Your task to perform on an android device: turn on airplane mode Image 0: 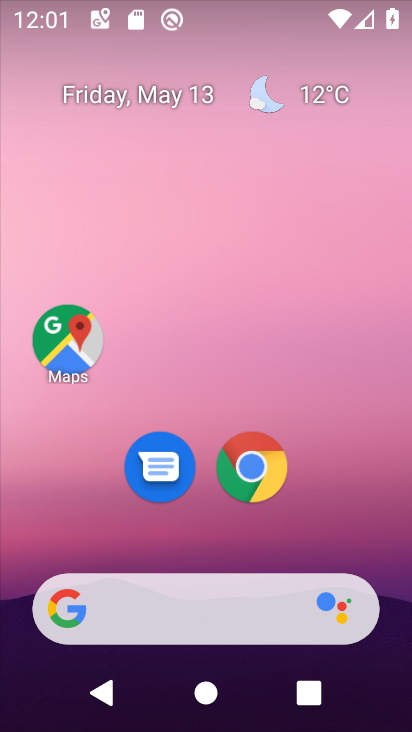
Step 0: press home button
Your task to perform on an android device: turn on airplane mode Image 1: 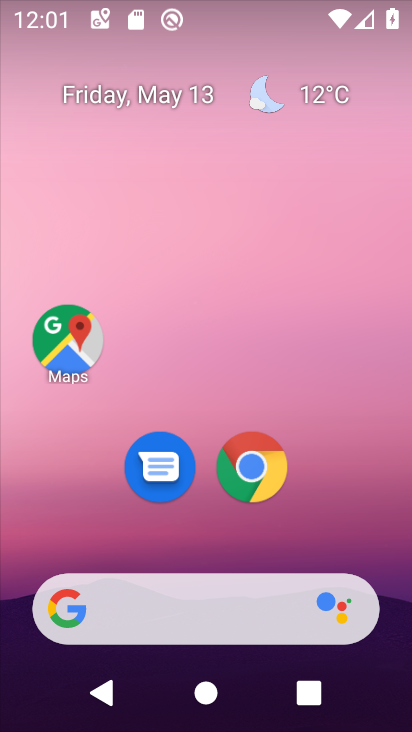
Step 1: drag from (342, 524) to (221, 114)
Your task to perform on an android device: turn on airplane mode Image 2: 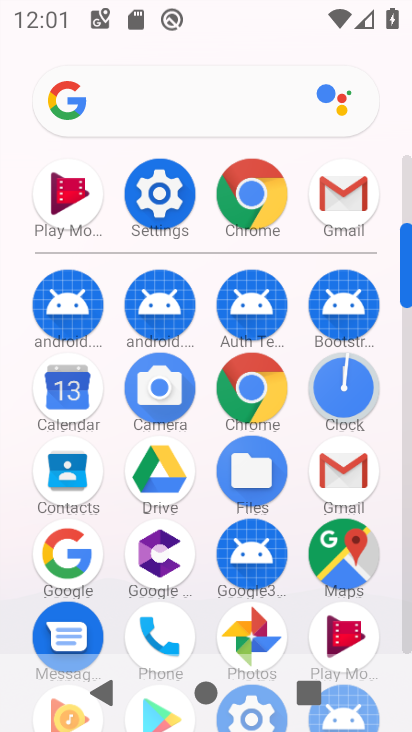
Step 2: click (171, 200)
Your task to perform on an android device: turn on airplane mode Image 3: 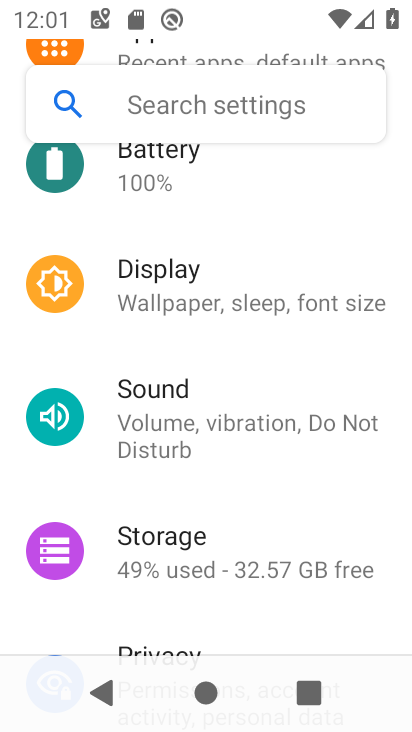
Step 3: drag from (251, 215) to (230, 649)
Your task to perform on an android device: turn on airplane mode Image 4: 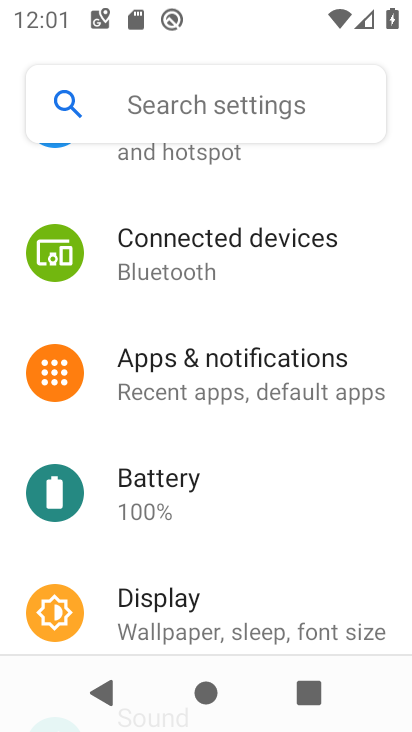
Step 4: drag from (234, 295) to (237, 680)
Your task to perform on an android device: turn on airplane mode Image 5: 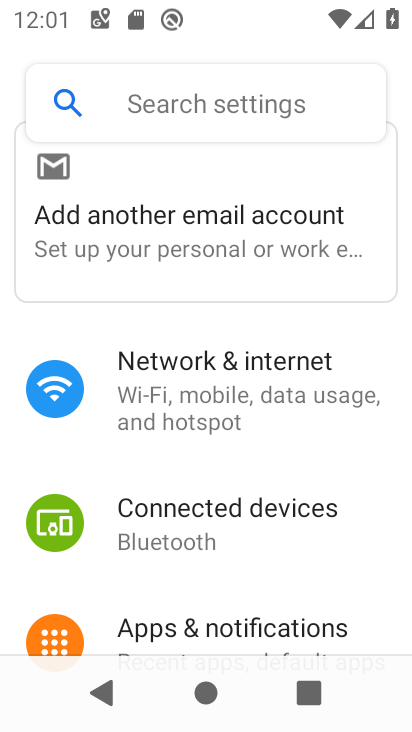
Step 5: click (195, 405)
Your task to perform on an android device: turn on airplane mode Image 6: 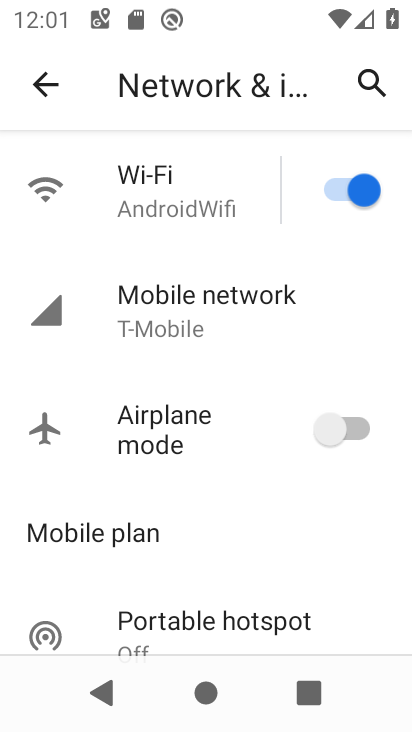
Step 6: click (338, 425)
Your task to perform on an android device: turn on airplane mode Image 7: 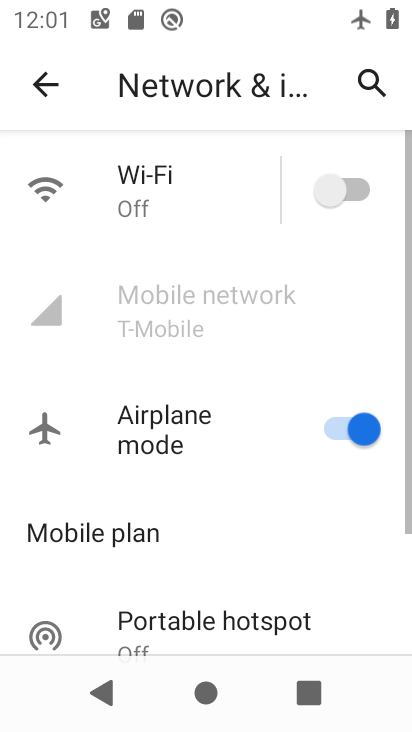
Step 7: task complete